Your task to perform on an android device: turn on translation in the chrome app Image 0: 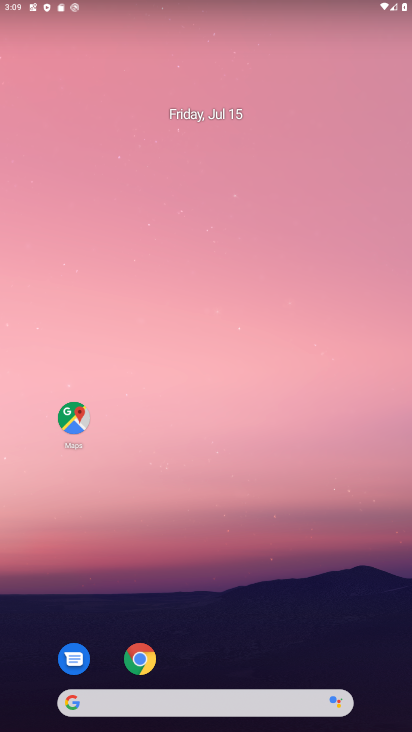
Step 0: click (142, 665)
Your task to perform on an android device: turn on translation in the chrome app Image 1: 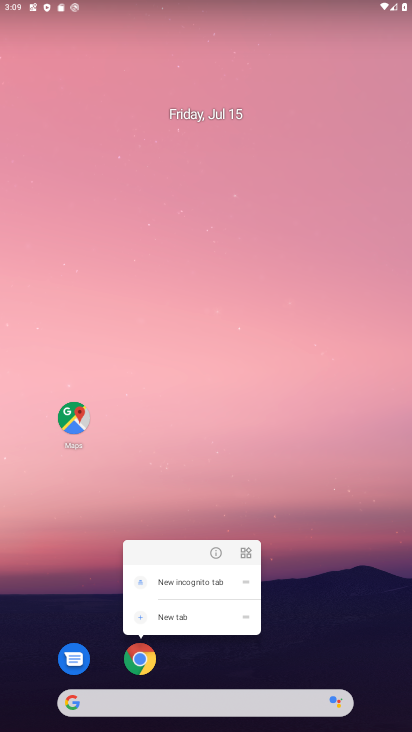
Step 1: click (141, 663)
Your task to perform on an android device: turn on translation in the chrome app Image 2: 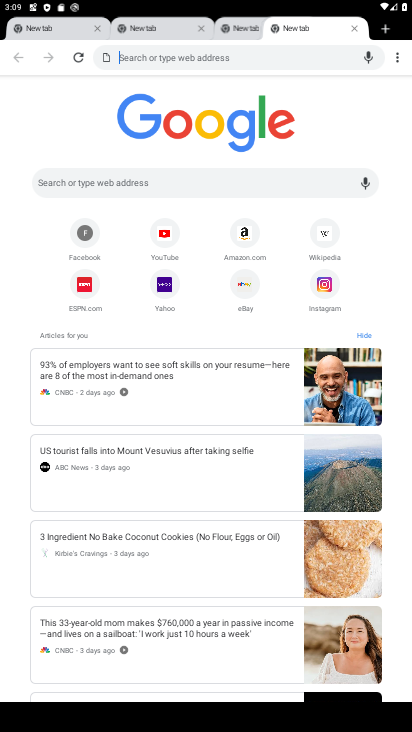
Step 2: click (393, 55)
Your task to perform on an android device: turn on translation in the chrome app Image 3: 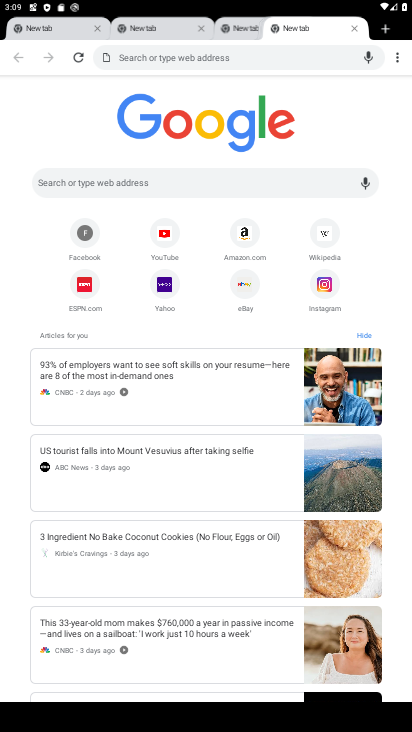
Step 3: click (393, 49)
Your task to perform on an android device: turn on translation in the chrome app Image 4: 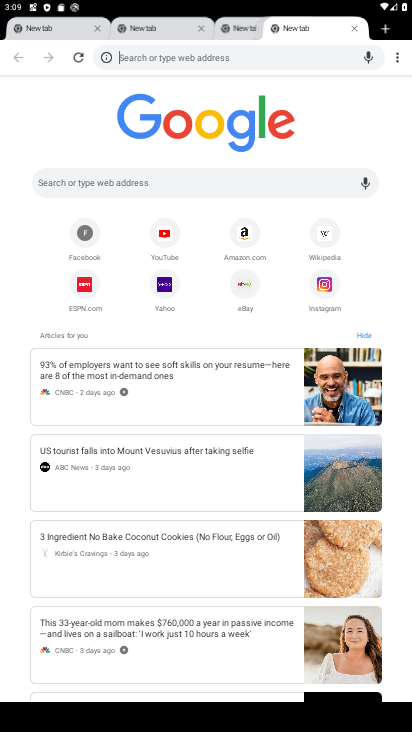
Step 4: task complete